Your task to perform on an android device: Find coffee shops on Maps Image 0: 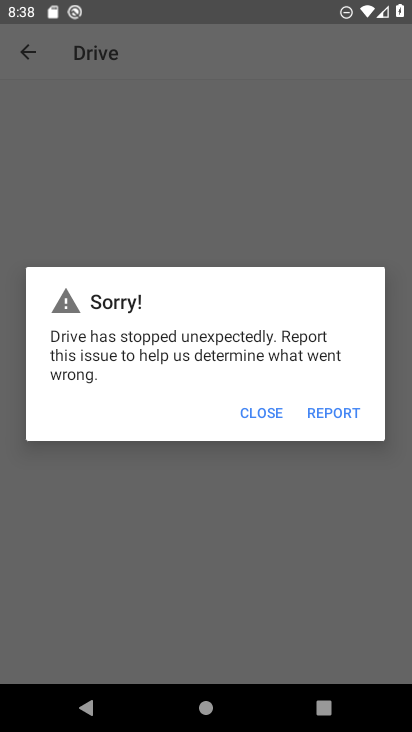
Step 0: drag from (217, 688) to (317, 206)
Your task to perform on an android device: Find coffee shops on Maps Image 1: 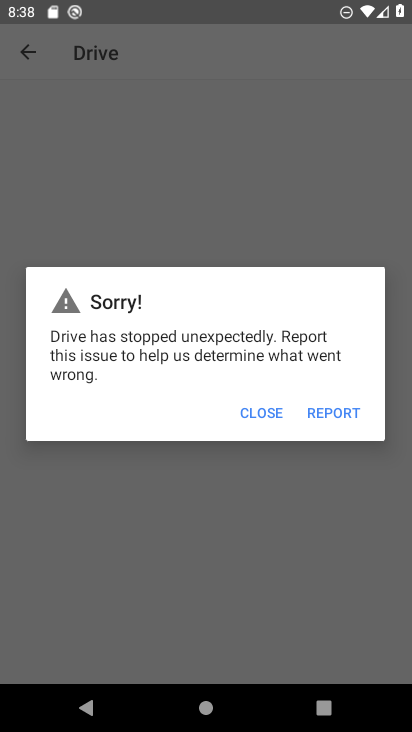
Step 1: press home button
Your task to perform on an android device: Find coffee shops on Maps Image 2: 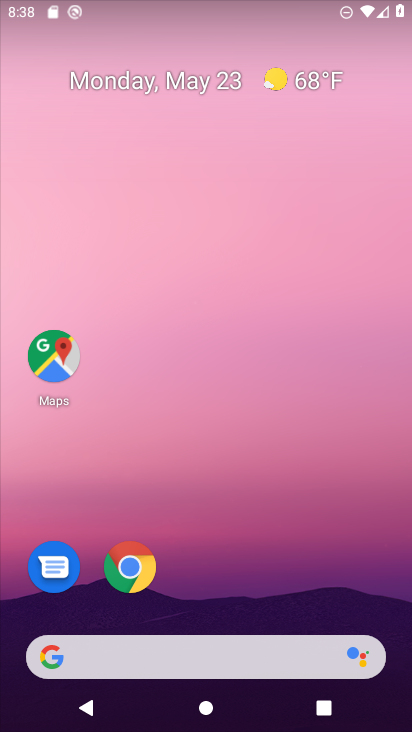
Step 2: drag from (202, 606) to (279, 172)
Your task to perform on an android device: Find coffee shops on Maps Image 3: 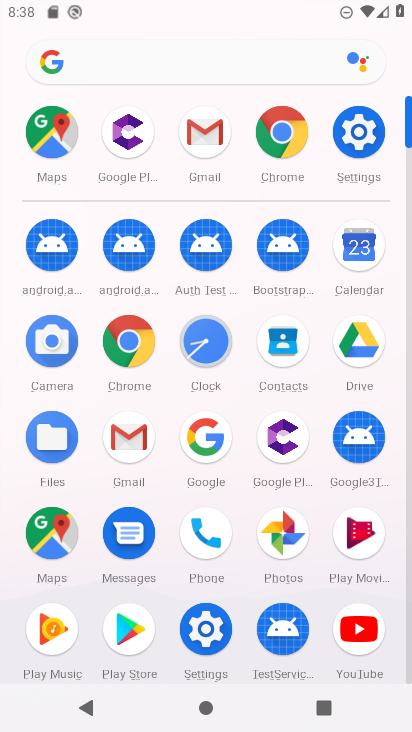
Step 3: click (42, 523)
Your task to perform on an android device: Find coffee shops on Maps Image 4: 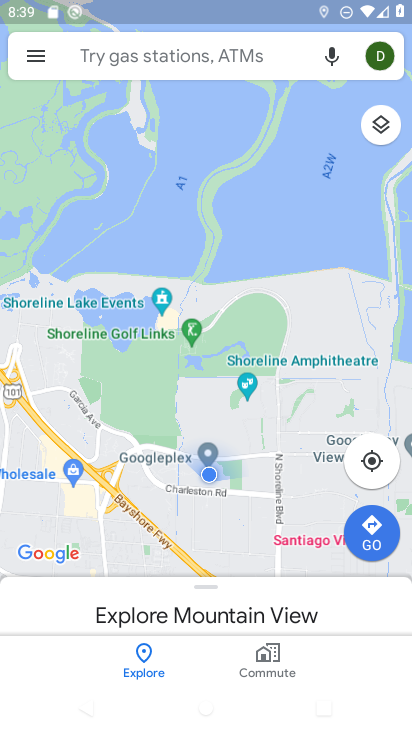
Step 4: click (157, 51)
Your task to perform on an android device: Find coffee shops on Maps Image 5: 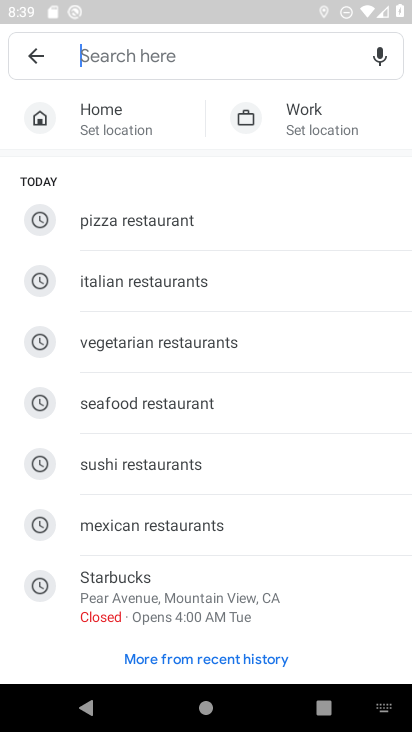
Step 5: drag from (221, 555) to (293, 146)
Your task to perform on an android device: Find coffee shops on Maps Image 6: 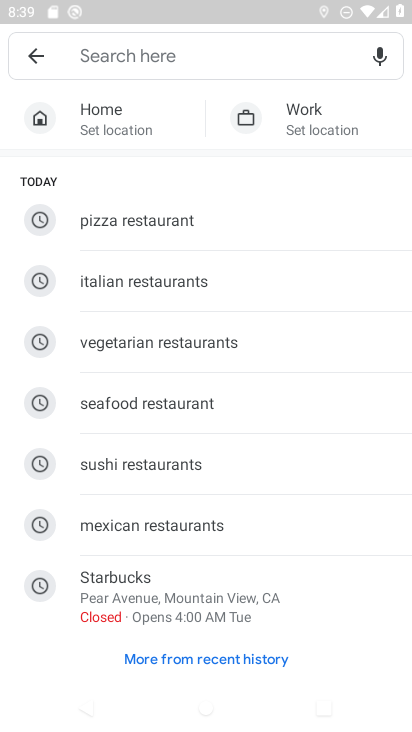
Step 6: click (212, 57)
Your task to perform on an android device: Find coffee shops on Maps Image 7: 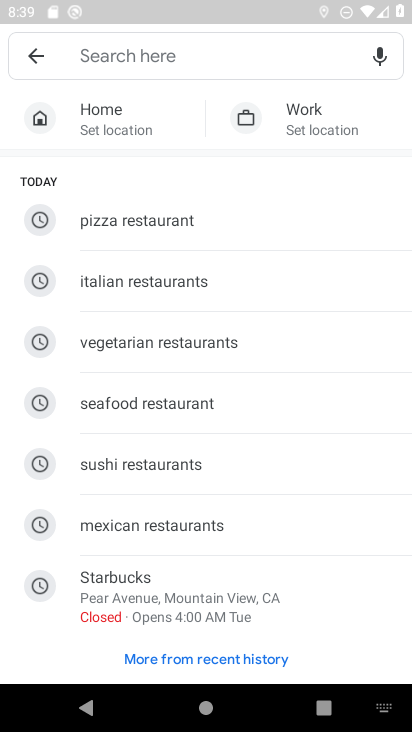
Step 7: type "coffee"
Your task to perform on an android device: Find coffee shops on Maps Image 8: 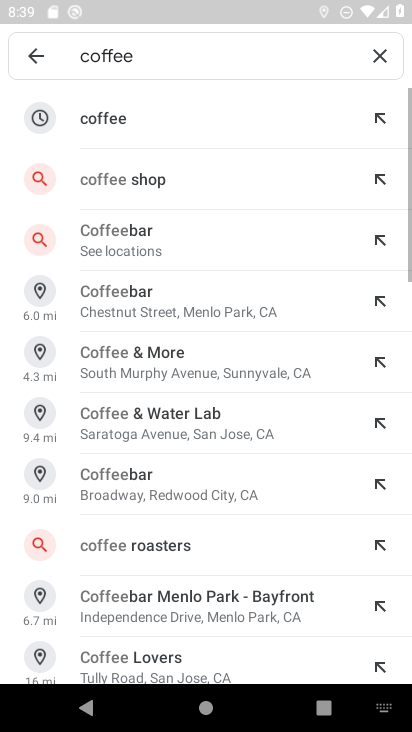
Step 8: click (91, 192)
Your task to perform on an android device: Find coffee shops on Maps Image 9: 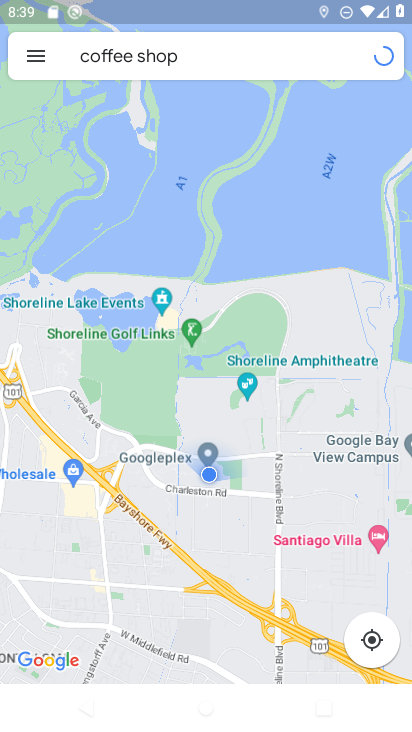
Step 9: task complete